Your task to perform on an android device: Go to Maps Image 0: 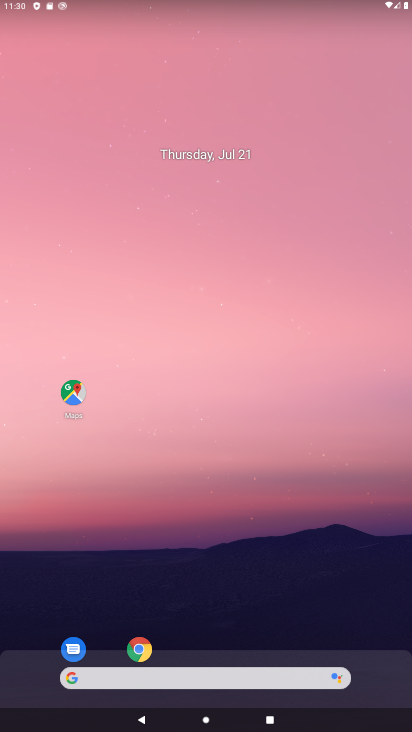
Step 0: drag from (290, 611) to (262, 42)
Your task to perform on an android device: Go to Maps Image 1: 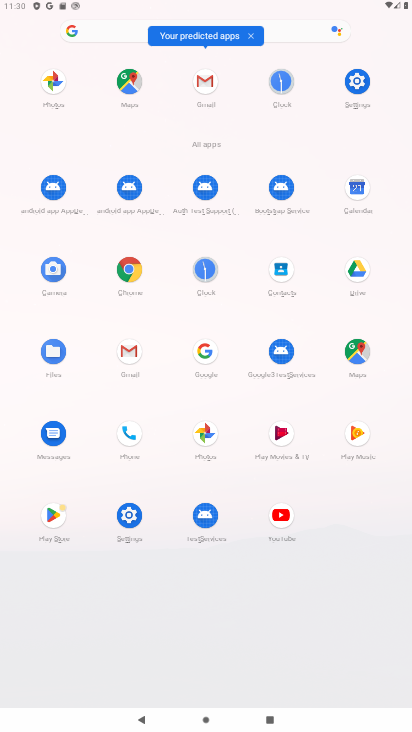
Step 1: click (358, 350)
Your task to perform on an android device: Go to Maps Image 2: 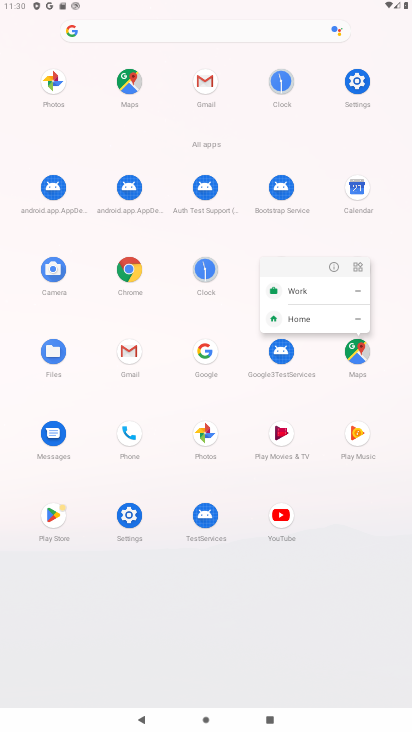
Step 2: click (355, 355)
Your task to perform on an android device: Go to Maps Image 3: 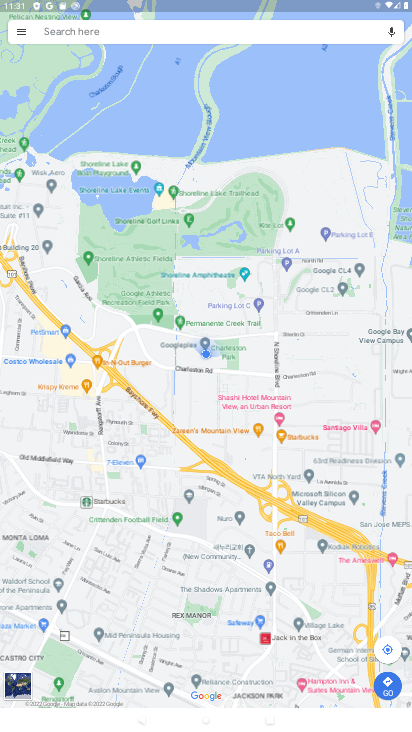
Step 3: task complete